Your task to perform on an android device: Go to Reddit.com Image 0: 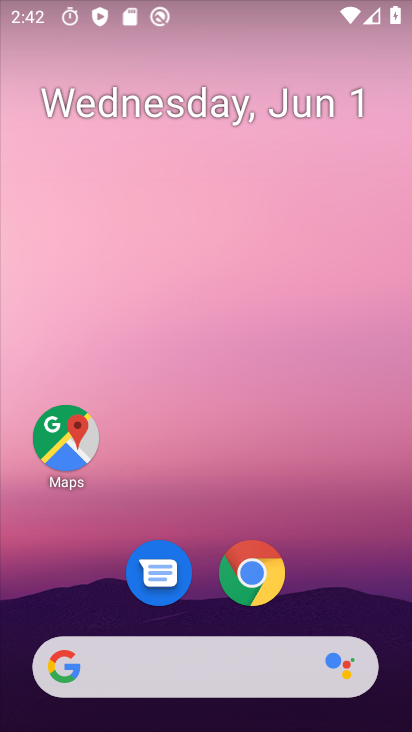
Step 0: drag from (210, 621) to (255, 204)
Your task to perform on an android device: Go to Reddit.com Image 1: 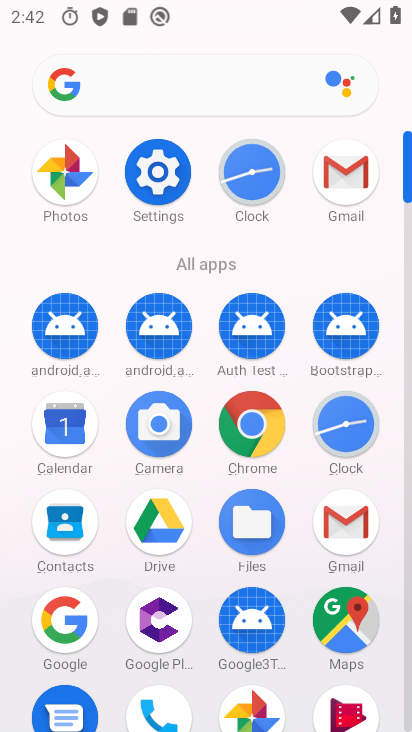
Step 1: click (243, 424)
Your task to perform on an android device: Go to Reddit.com Image 2: 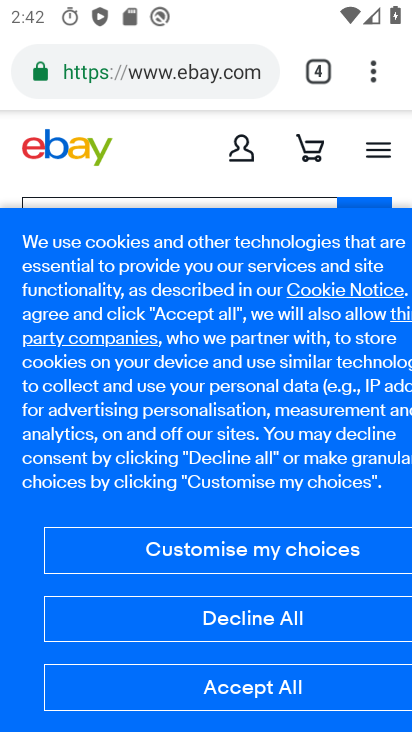
Step 2: click (311, 78)
Your task to perform on an android device: Go to Reddit.com Image 3: 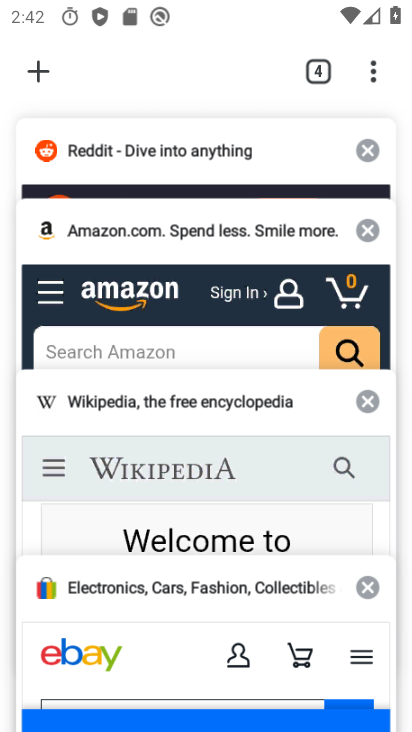
Step 3: click (191, 173)
Your task to perform on an android device: Go to Reddit.com Image 4: 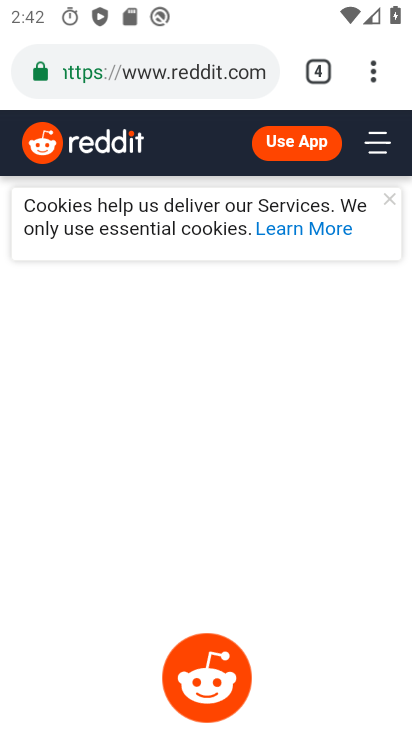
Step 4: task complete